Your task to perform on an android device: open the mobile data screen to see how much data has been used Image 0: 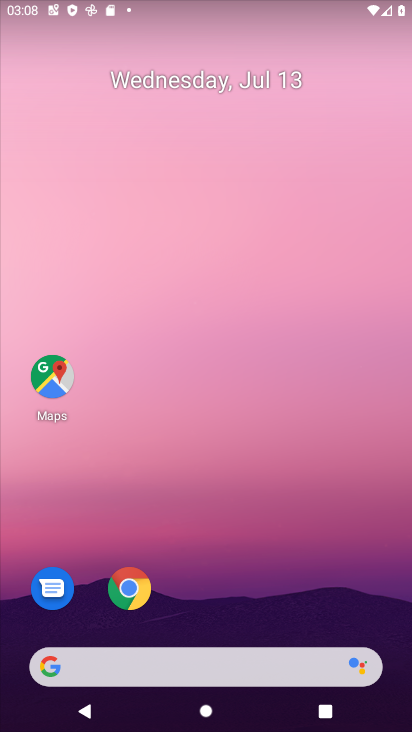
Step 0: drag from (395, 699) to (343, 158)
Your task to perform on an android device: open the mobile data screen to see how much data has been used Image 1: 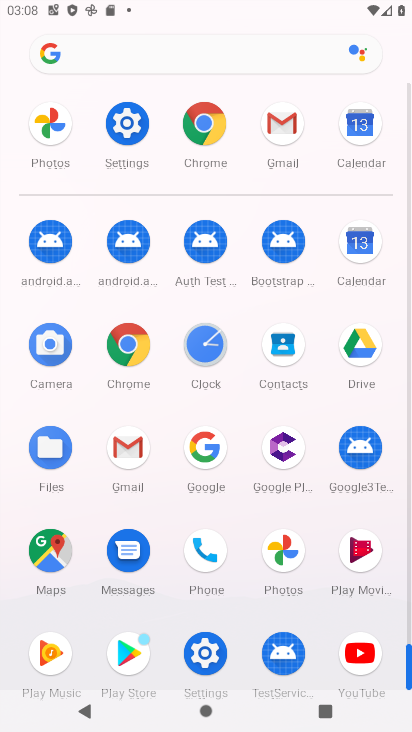
Step 1: click (123, 125)
Your task to perform on an android device: open the mobile data screen to see how much data has been used Image 2: 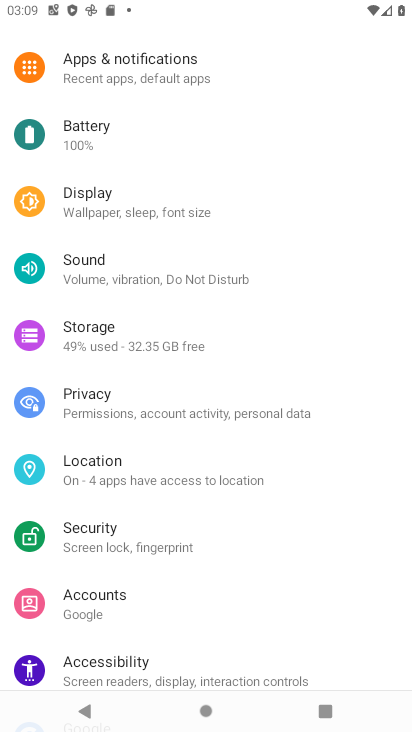
Step 2: drag from (155, 96) to (157, 468)
Your task to perform on an android device: open the mobile data screen to see how much data has been used Image 3: 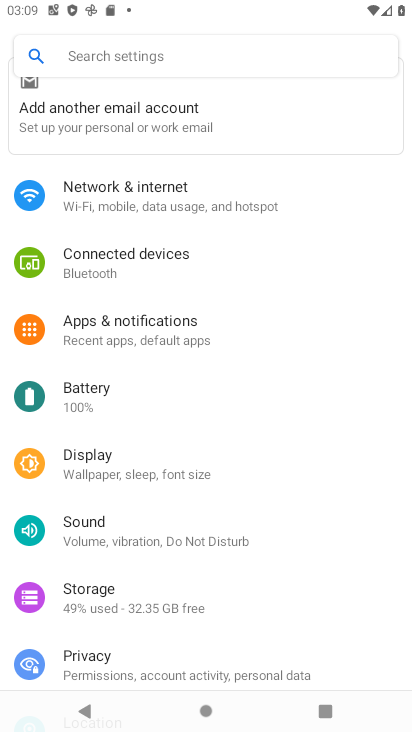
Step 3: click (105, 193)
Your task to perform on an android device: open the mobile data screen to see how much data has been used Image 4: 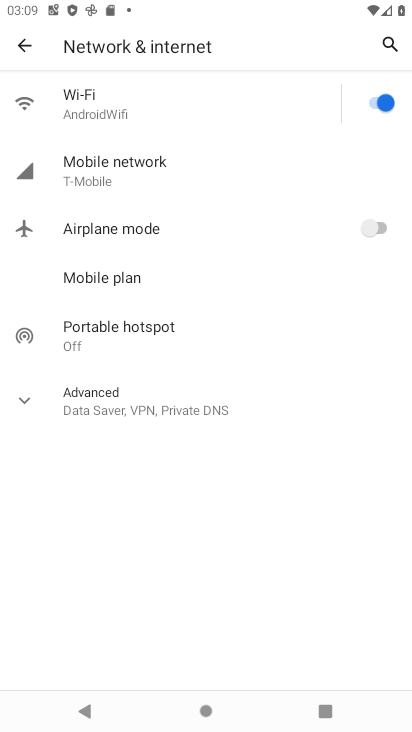
Step 4: click (119, 171)
Your task to perform on an android device: open the mobile data screen to see how much data has been used Image 5: 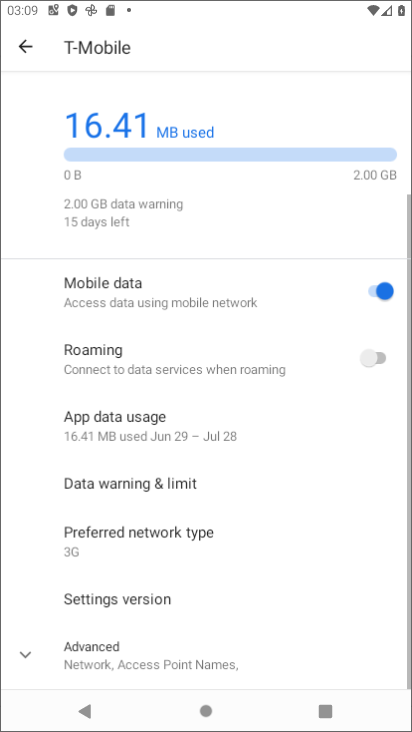
Step 5: task complete